Your task to perform on an android device: Open ESPN.com Image 0: 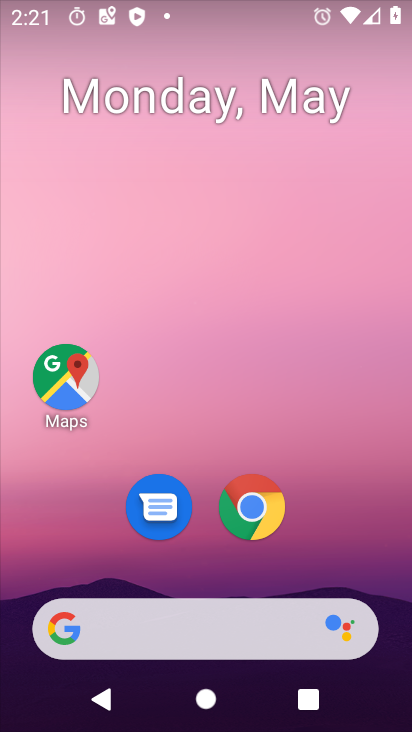
Step 0: click (275, 527)
Your task to perform on an android device: Open ESPN.com Image 1: 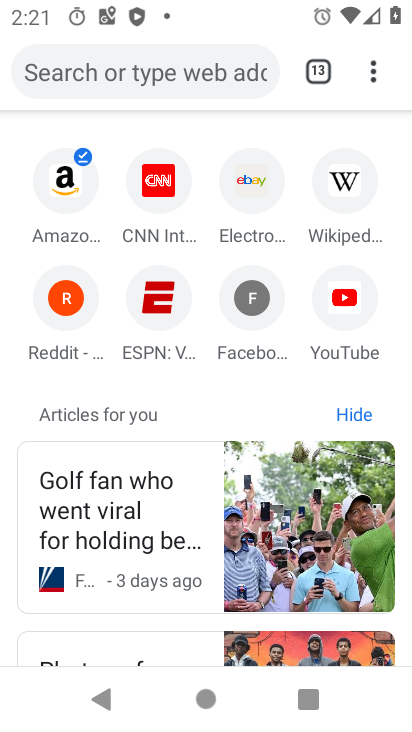
Step 1: click (153, 308)
Your task to perform on an android device: Open ESPN.com Image 2: 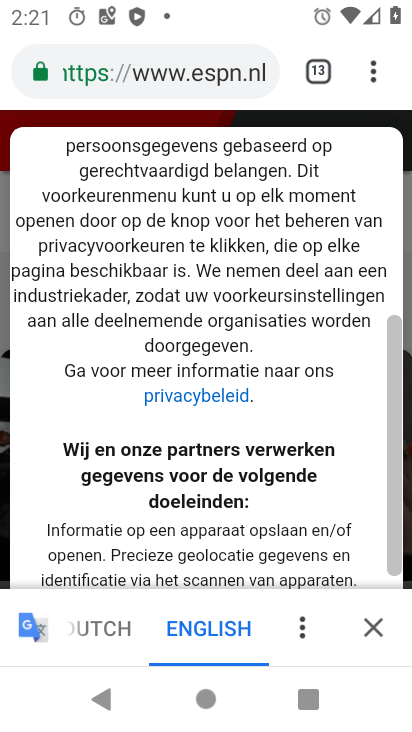
Step 2: task complete